Your task to perform on an android device: turn on wifi Image 0: 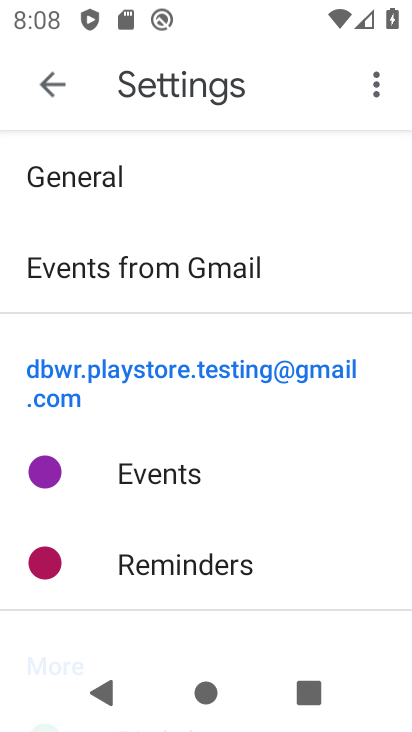
Step 0: press home button
Your task to perform on an android device: turn on wifi Image 1: 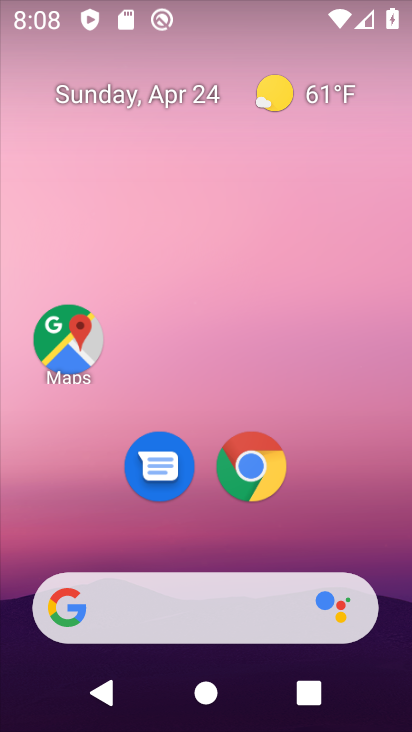
Step 1: drag from (202, 551) to (234, 10)
Your task to perform on an android device: turn on wifi Image 2: 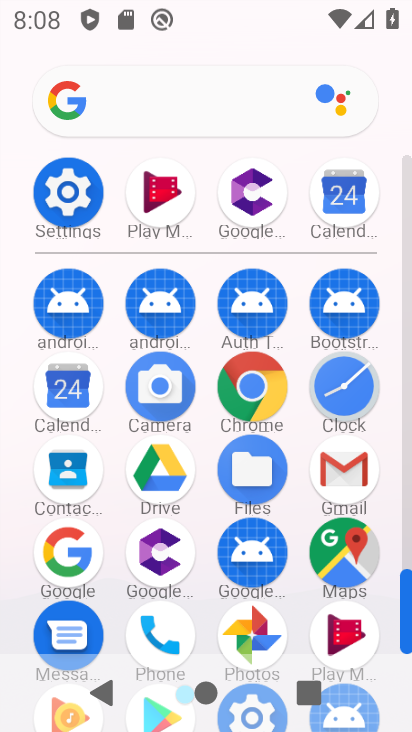
Step 2: click (61, 201)
Your task to perform on an android device: turn on wifi Image 3: 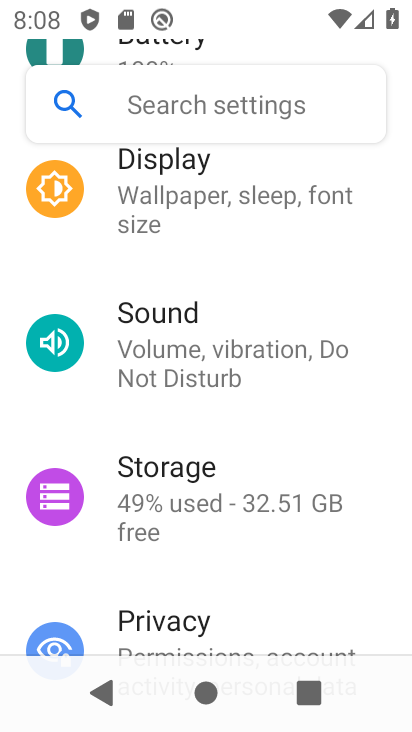
Step 3: drag from (182, 311) to (193, 723)
Your task to perform on an android device: turn on wifi Image 4: 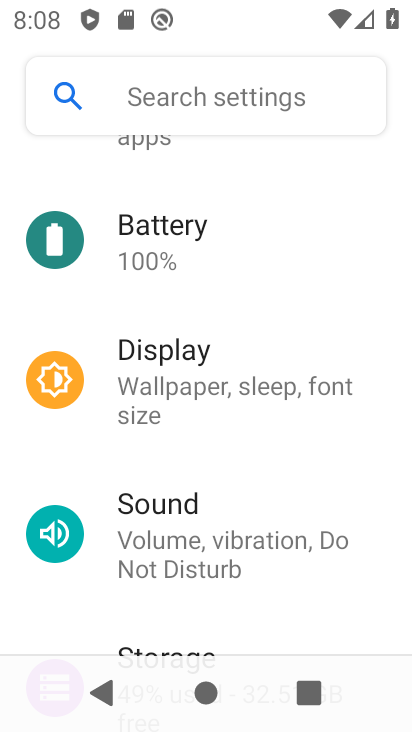
Step 4: drag from (218, 301) to (220, 726)
Your task to perform on an android device: turn on wifi Image 5: 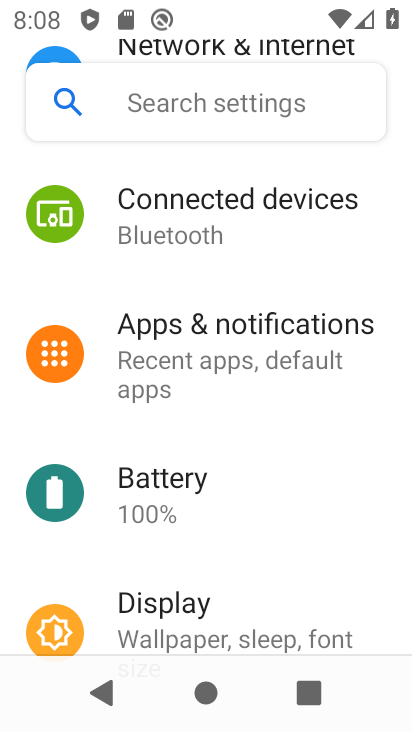
Step 5: drag from (246, 274) to (201, 635)
Your task to perform on an android device: turn on wifi Image 6: 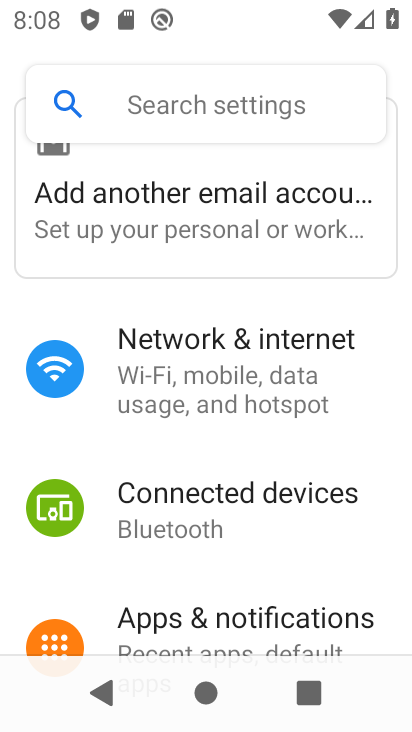
Step 6: click (225, 395)
Your task to perform on an android device: turn on wifi Image 7: 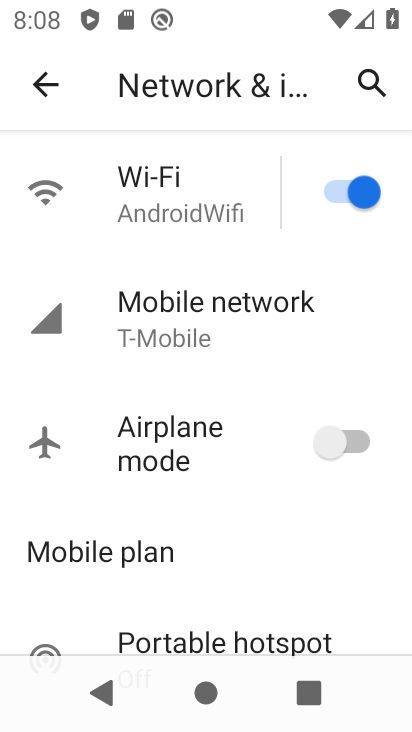
Step 7: task complete